Your task to perform on an android device: Go to eBay Image 0: 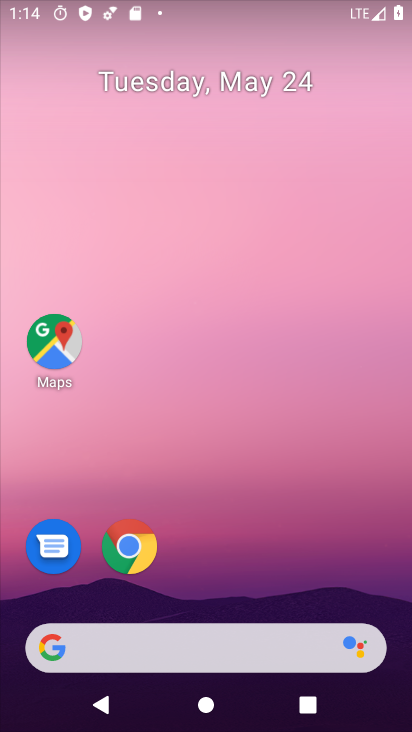
Step 0: drag from (202, 589) to (297, 56)
Your task to perform on an android device: Go to eBay Image 1: 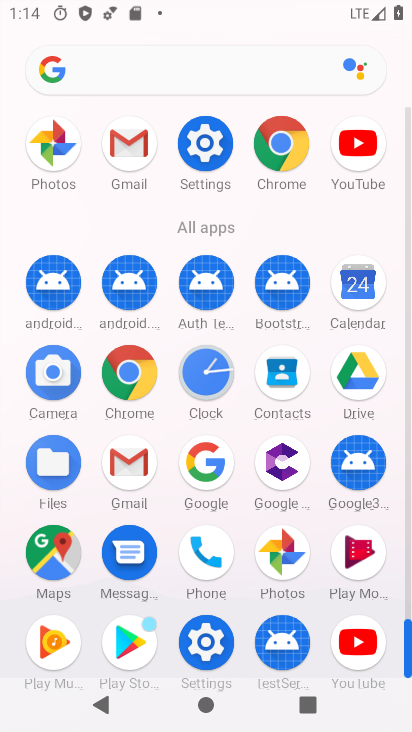
Step 1: click (156, 40)
Your task to perform on an android device: Go to eBay Image 2: 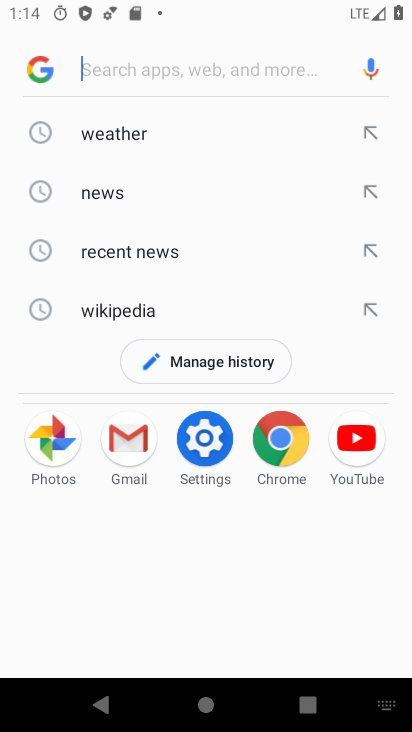
Step 2: type "ebay"
Your task to perform on an android device: Go to eBay Image 3: 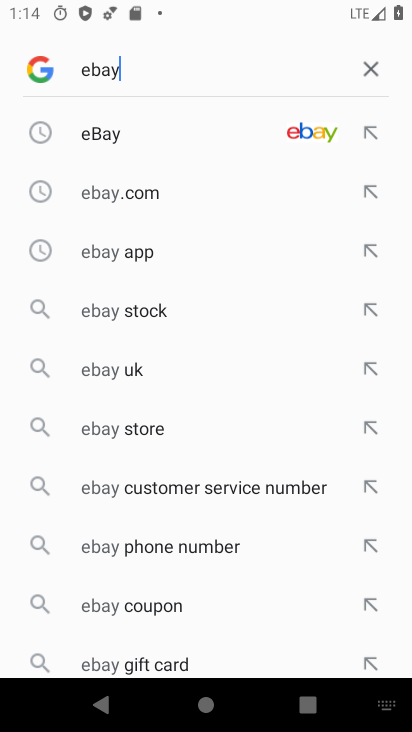
Step 3: click (150, 141)
Your task to perform on an android device: Go to eBay Image 4: 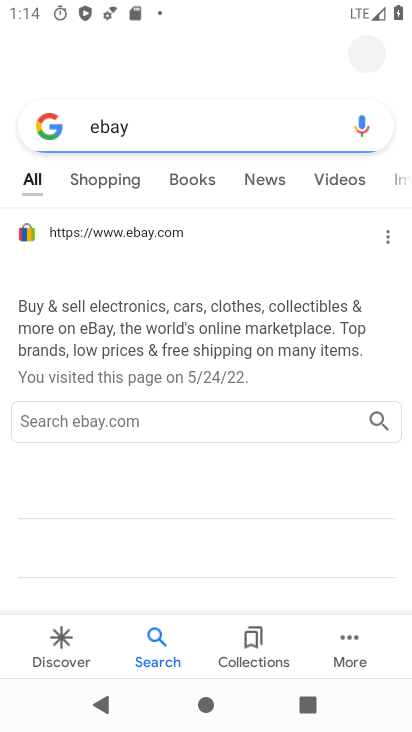
Step 4: task complete